Your task to perform on an android device: Open notification settings Image 0: 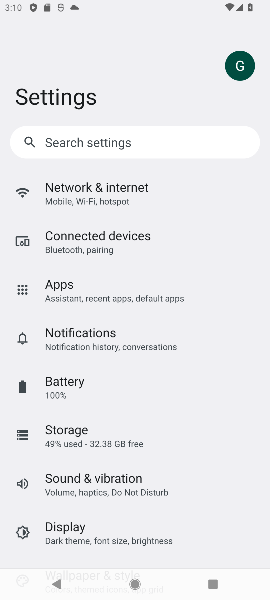
Step 0: task complete